Your task to perform on an android device: turn off improve location accuracy Image 0: 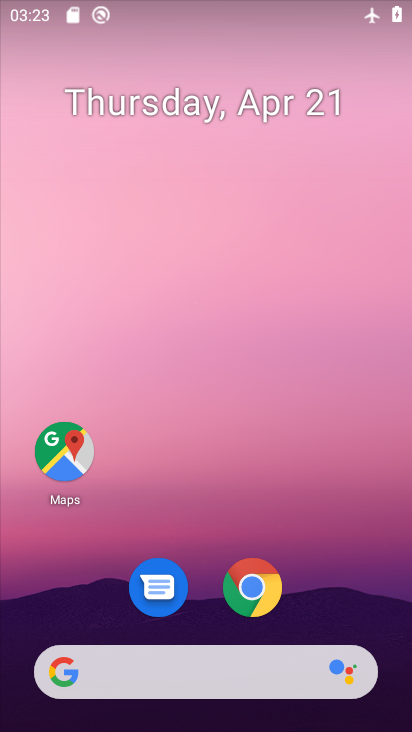
Step 0: drag from (365, 590) to (379, 201)
Your task to perform on an android device: turn off improve location accuracy Image 1: 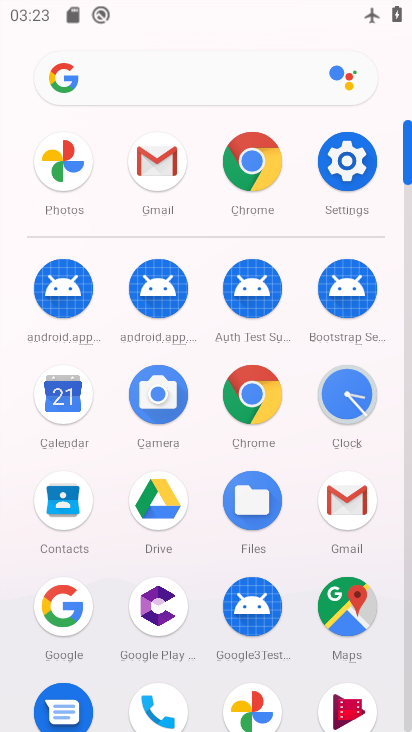
Step 1: click (356, 175)
Your task to perform on an android device: turn off improve location accuracy Image 2: 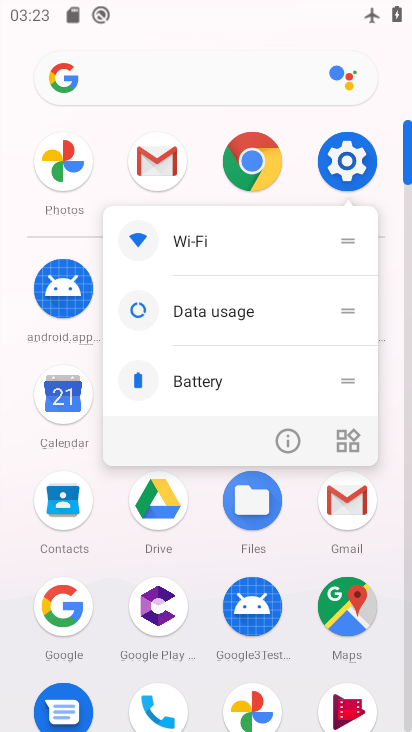
Step 2: click (356, 175)
Your task to perform on an android device: turn off improve location accuracy Image 3: 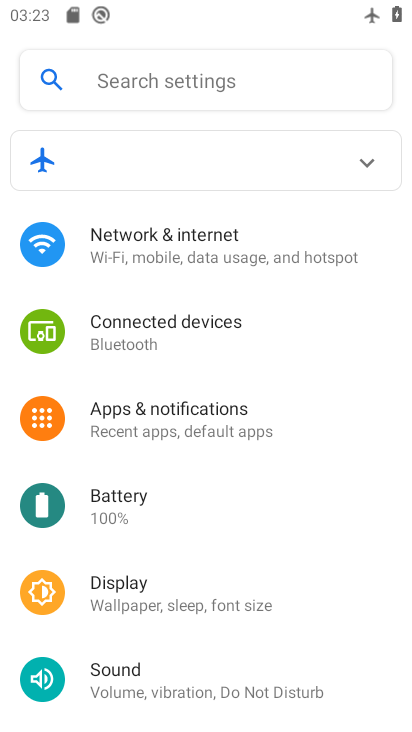
Step 3: drag from (349, 553) to (356, 416)
Your task to perform on an android device: turn off improve location accuracy Image 4: 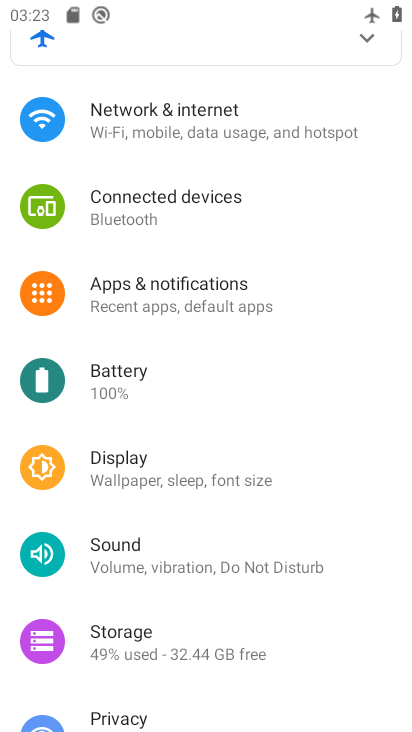
Step 4: drag from (349, 605) to (356, 446)
Your task to perform on an android device: turn off improve location accuracy Image 5: 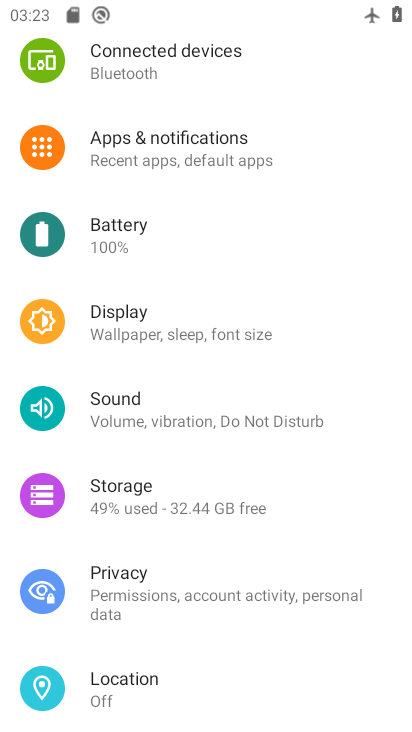
Step 5: drag from (363, 627) to (378, 471)
Your task to perform on an android device: turn off improve location accuracy Image 6: 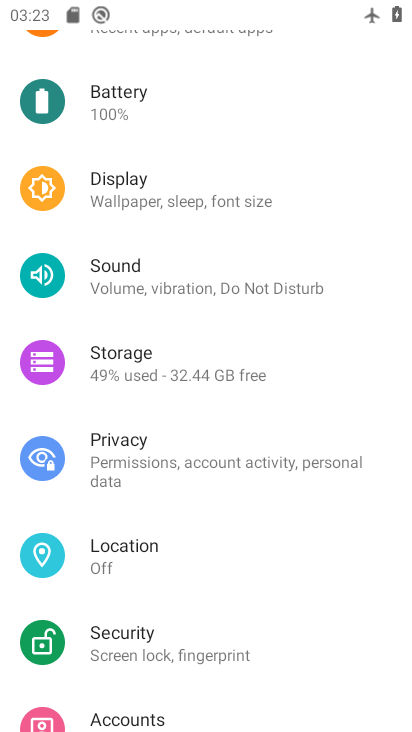
Step 6: drag from (368, 582) to (375, 461)
Your task to perform on an android device: turn off improve location accuracy Image 7: 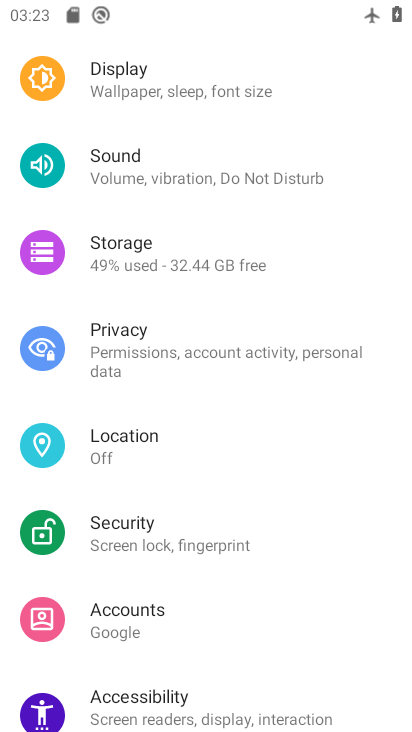
Step 7: drag from (352, 608) to (345, 467)
Your task to perform on an android device: turn off improve location accuracy Image 8: 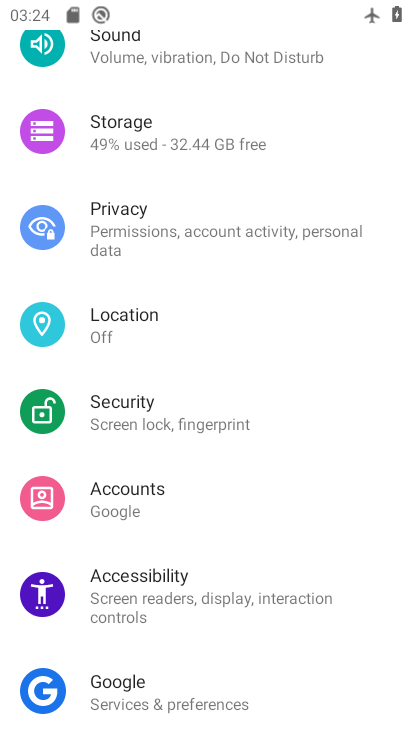
Step 8: drag from (354, 641) to (355, 496)
Your task to perform on an android device: turn off improve location accuracy Image 9: 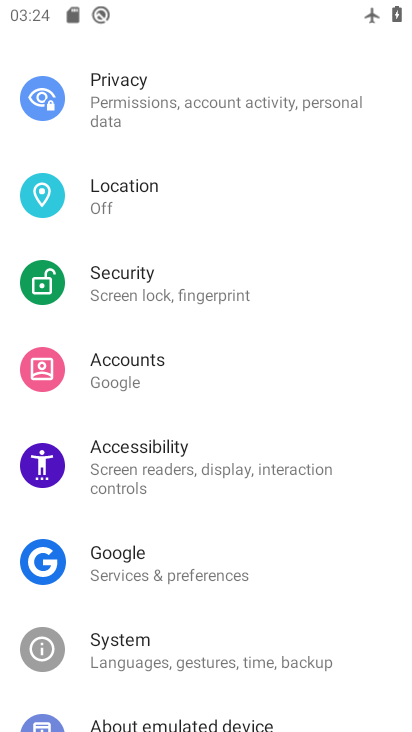
Step 9: drag from (348, 605) to (352, 465)
Your task to perform on an android device: turn off improve location accuracy Image 10: 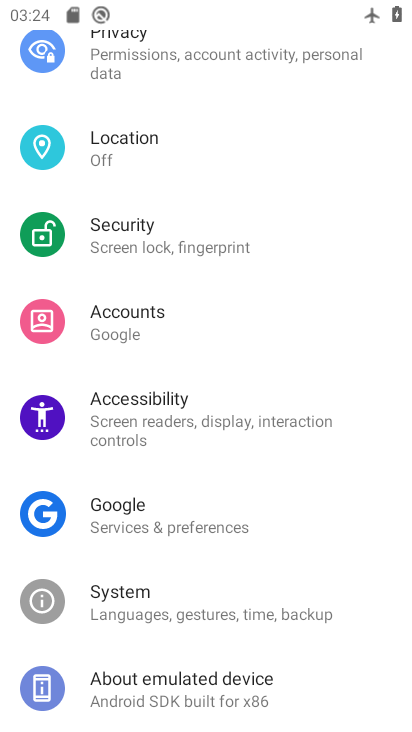
Step 10: drag from (361, 678) to (373, 502)
Your task to perform on an android device: turn off improve location accuracy Image 11: 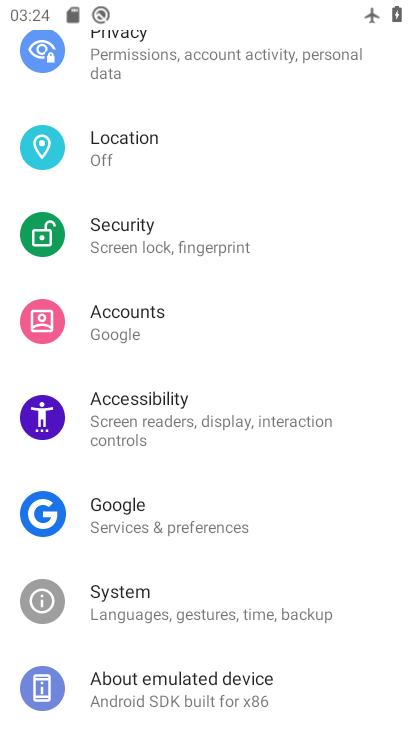
Step 11: drag from (366, 344) to (361, 463)
Your task to perform on an android device: turn off improve location accuracy Image 12: 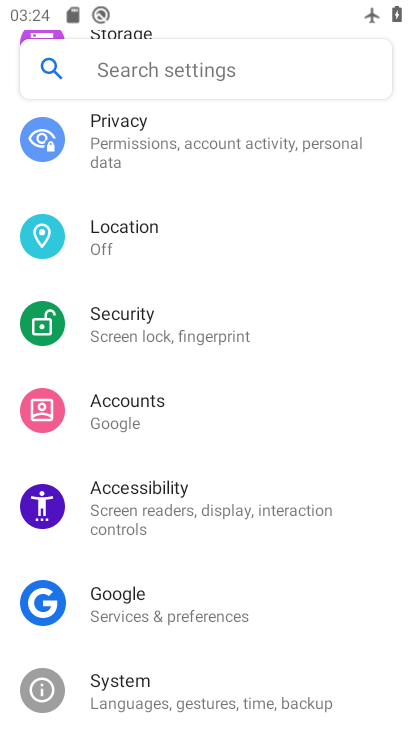
Step 12: drag from (357, 351) to (351, 490)
Your task to perform on an android device: turn off improve location accuracy Image 13: 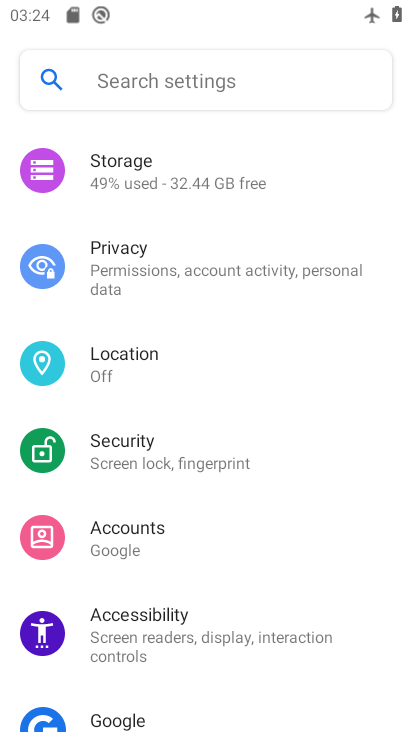
Step 13: drag from (355, 396) to (347, 603)
Your task to perform on an android device: turn off improve location accuracy Image 14: 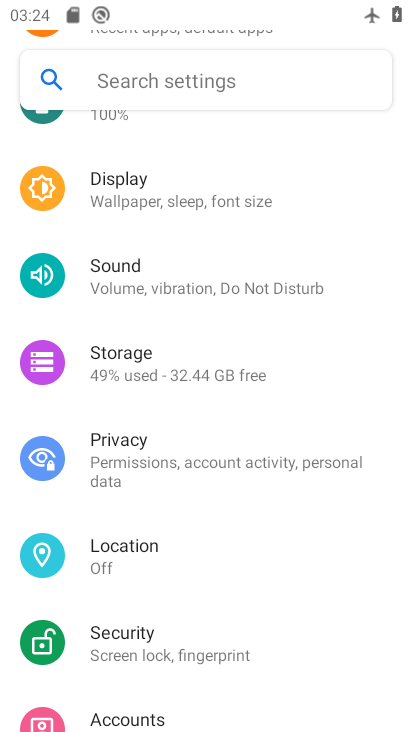
Step 14: click (143, 571)
Your task to perform on an android device: turn off improve location accuracy Image 15: 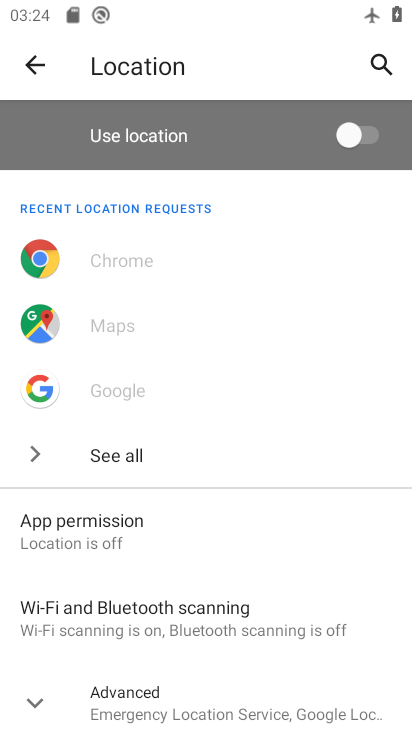
Step 15: drag from (309, 572) to (335, 437)
Your task to perform on an android device: turn off improve location accuracy Image 16: 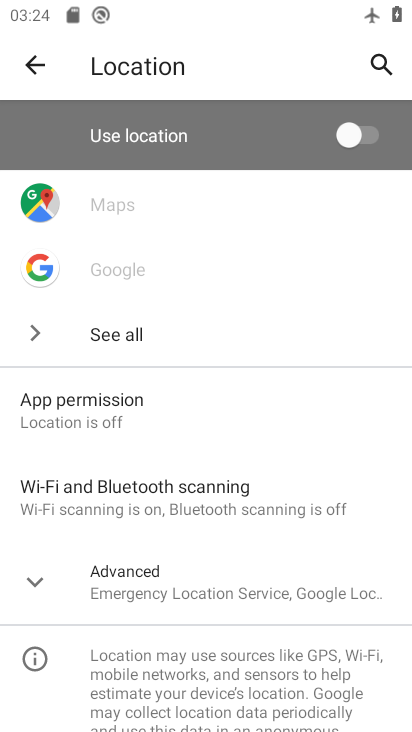
Step 16: click (206, 584)
Your task to perform on an android device: turn off improve location accuracy Image 17: 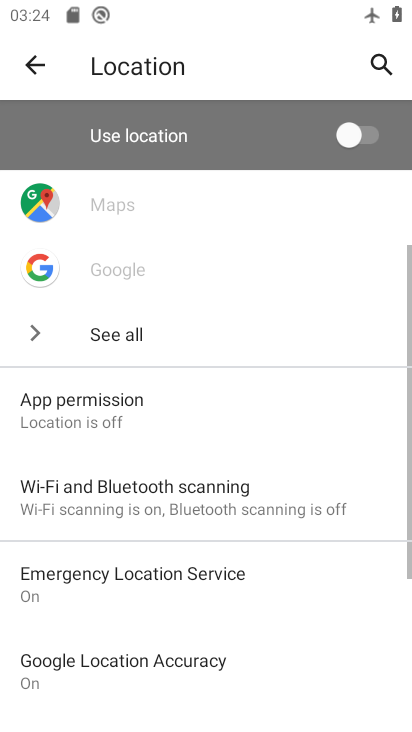
Step 17: drag from (292, 608) to (300, 451)
Your task to perform on an android device: turn off improve location accuracy Image 18: 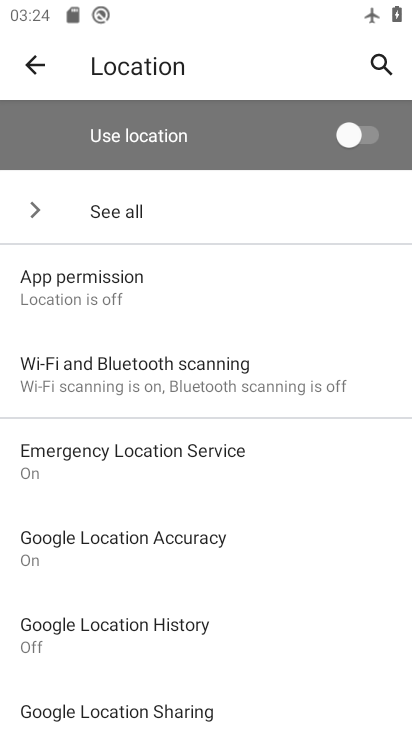
Step 18: drag from (292, 639) to (299, 499)
Your task to perform on an android device: turn off improve location accuracy Image 19: 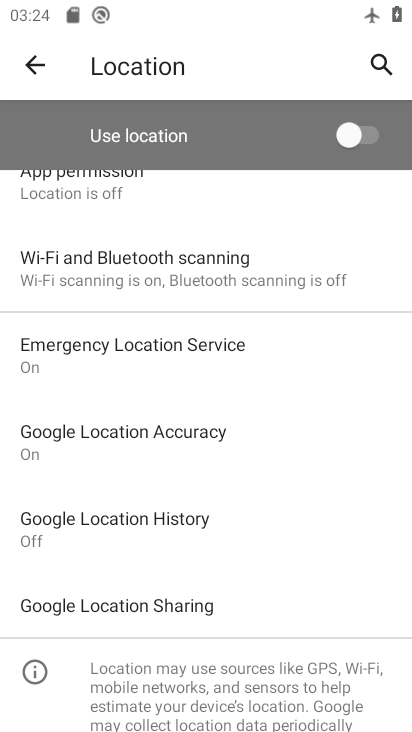
Step 19: click (179, 448)
Your task to perform on an android device: turn off improve location accuracy Image 20: 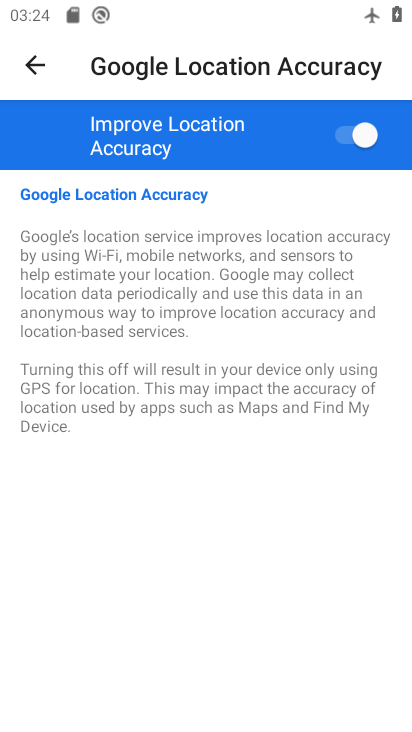
Step 20: click (346, 133)
Your task to perform on an android device: turn off improve location accuracy Image 21: 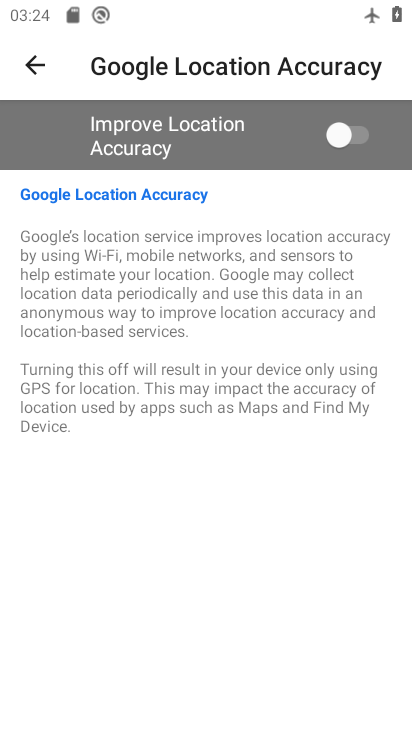
Step 21: task complete